Your task to perform on an android device: move an email to a new category in the gmail app Image 0: 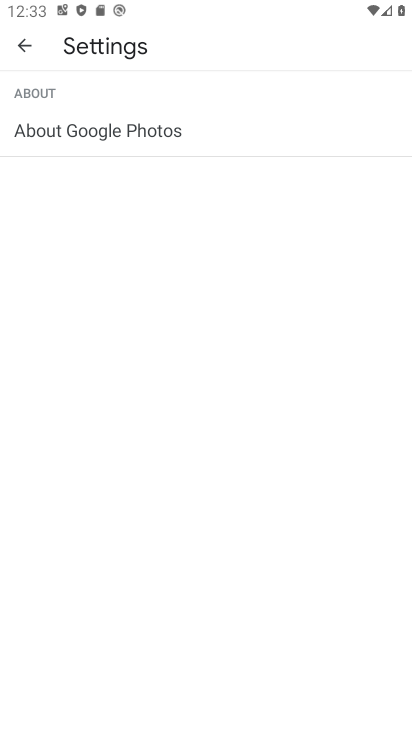
Step 0: press home button
Your task to perform on an android device: move an email to a new category in the gmail app Image 1: 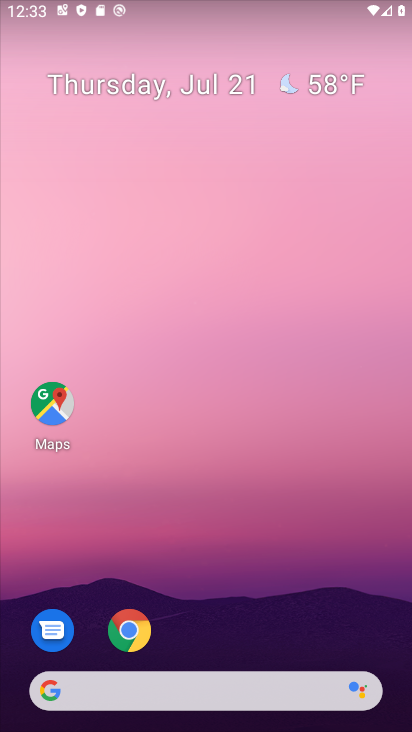
Step 1: drag from (186, 654) to (225, 101)
Your task to perform on an android device: move an email to a new category in the gmail app Image 2: 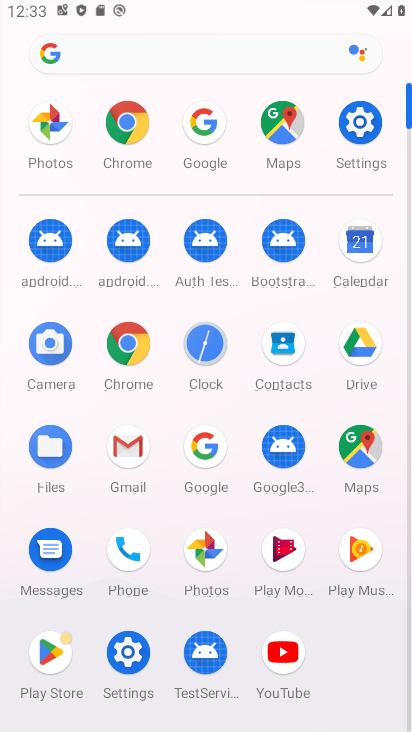
Step 2: click (134, 453)
Your task to perform on an android device: move an email to a new category in the gmail app Image 3: 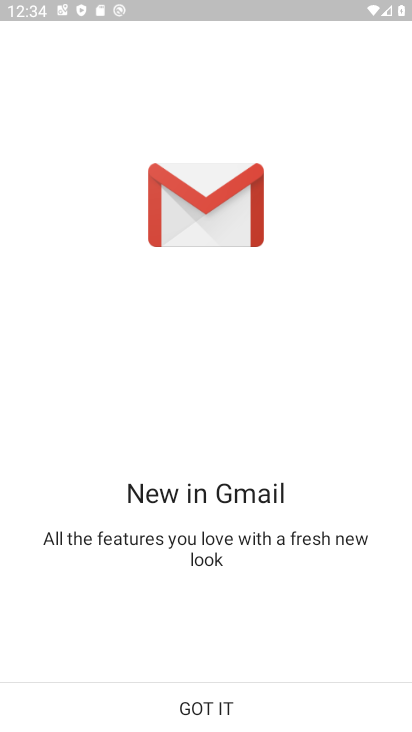
Step 3: click (190, 717)
Your task to perform on an android device: move an email to a new category in the gmail app Image 4: 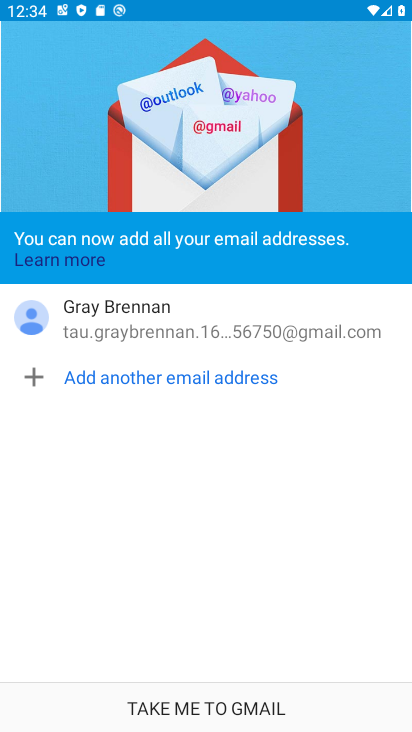
Step 4: click (194, 712)
Your task to perform on an android device: move an email to a new category in the gmail app Image 5: 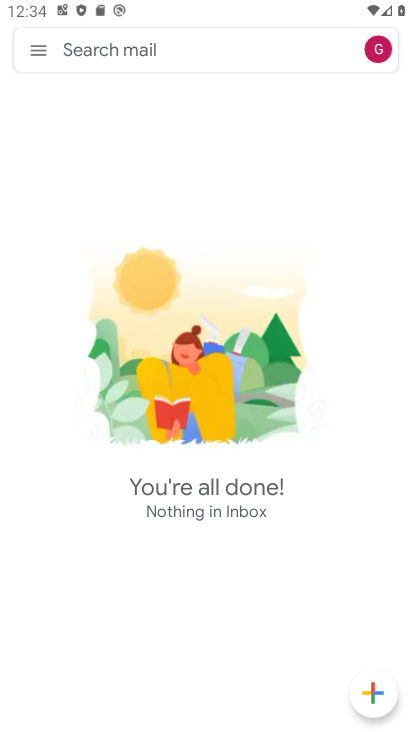
Step 5: click (38, 53)
Your task to perform on an android device: move an email to a new category in the gmail app Image 6: 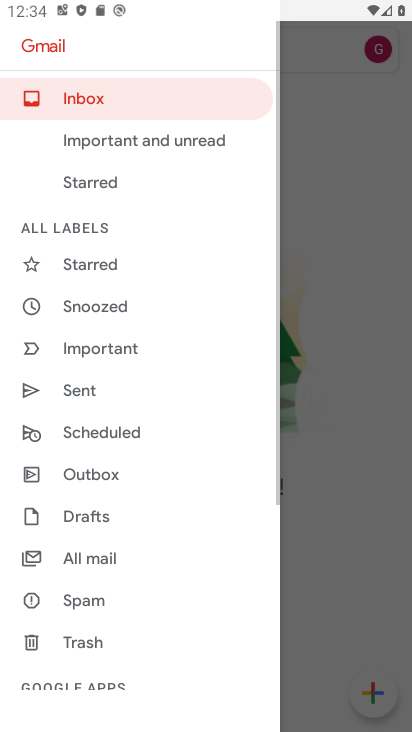
Step 6: click (110, 549)
Your task to perform on an android device: move an email to a new category in the gmail app Image 7: 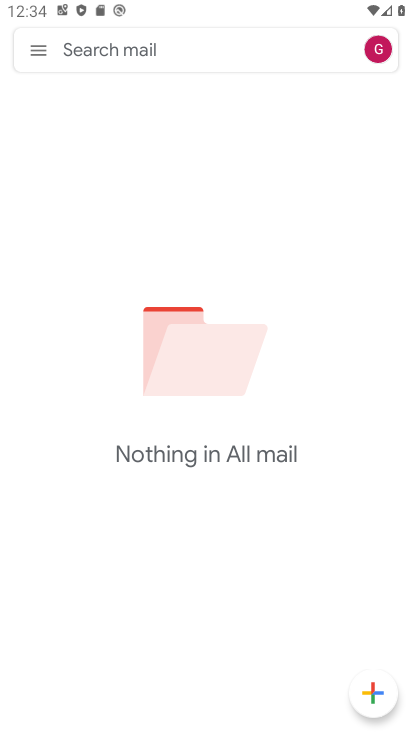
Step 7: task complete